Your task to perform on an android device: set an alarm Image 0: 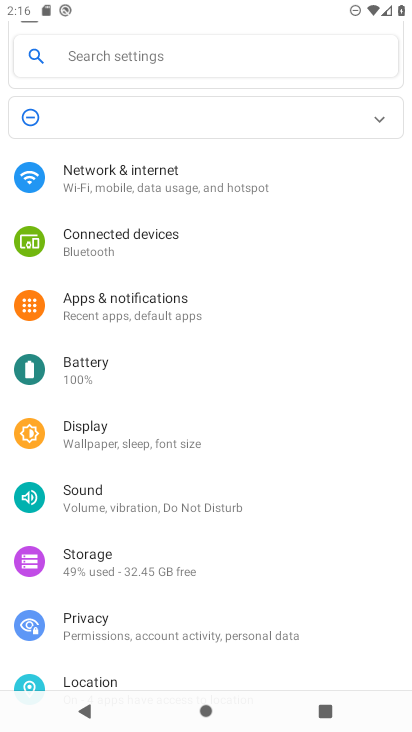
Step 0: press home button
Your task to perform on an android device: set an alarm Image 1: 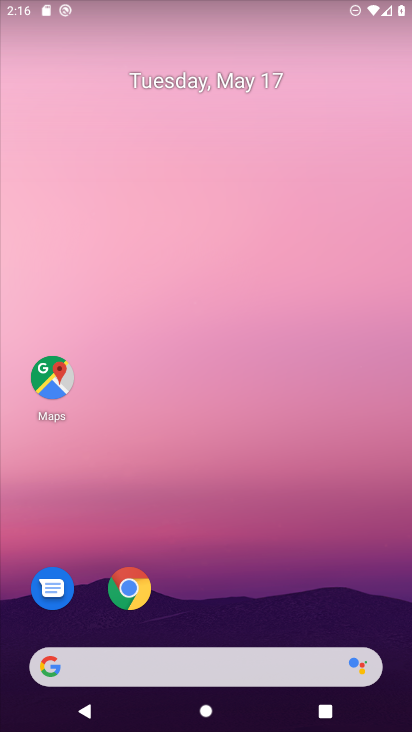
Step 1: drag from (214, 586) to (86, 121)
Your task to perform on an android device: set an alarm Image 2: 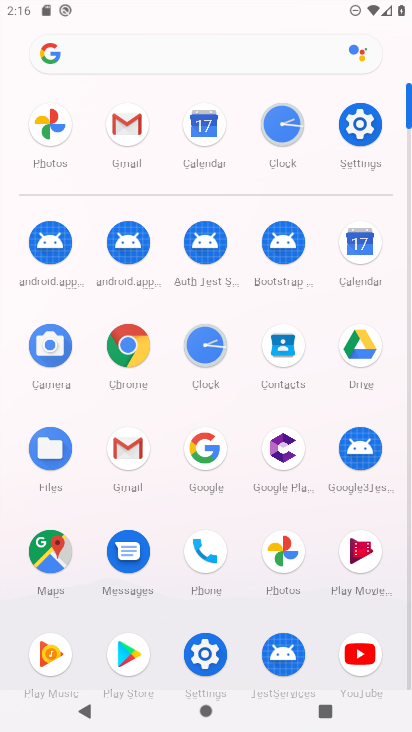
Step 2: click (283, 137)
Your task to perform on an android device: set an alarm Image 3: 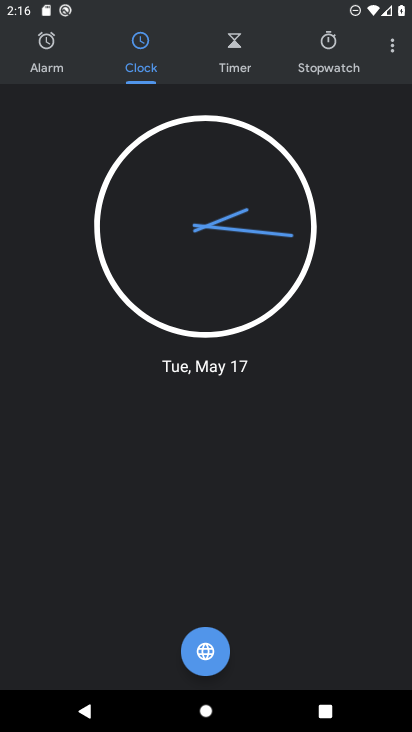
Step 3: click (37, 66)
Your task to perform on an android device: set an alarm Image 4: 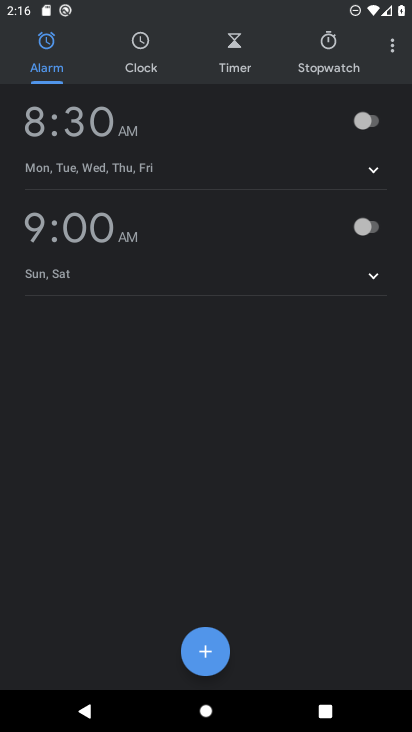
Step 4: click (217, 654)
Your task to perform on an android device: set an alarm Image 5: 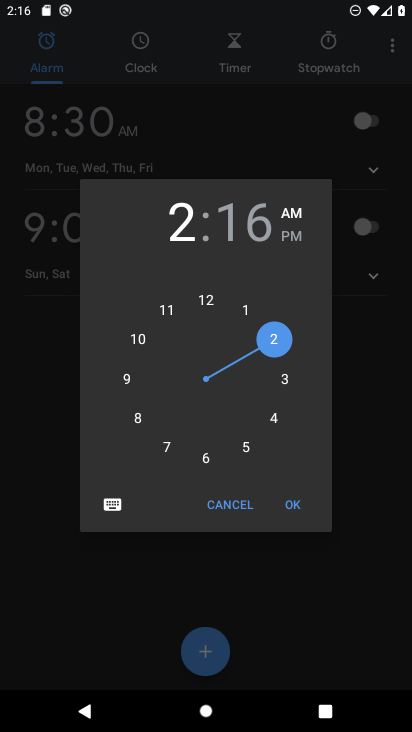
Step 5: click (300, 504)
Your task to perform on an android device: set an alarm Image 6: 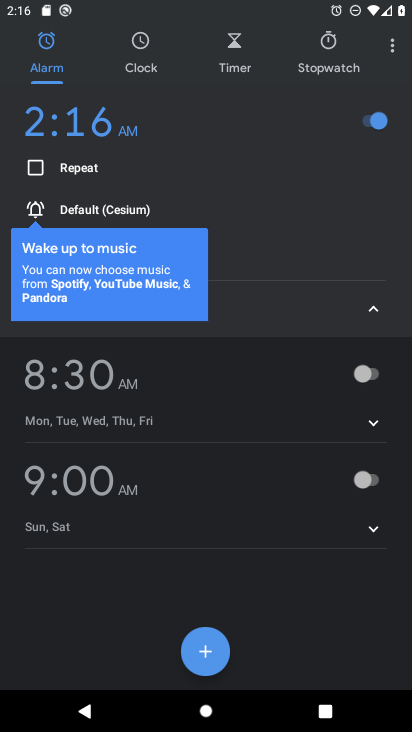
Step 6: click (380, 315)
Your task to perform on an android device: set an alarm Image 7: 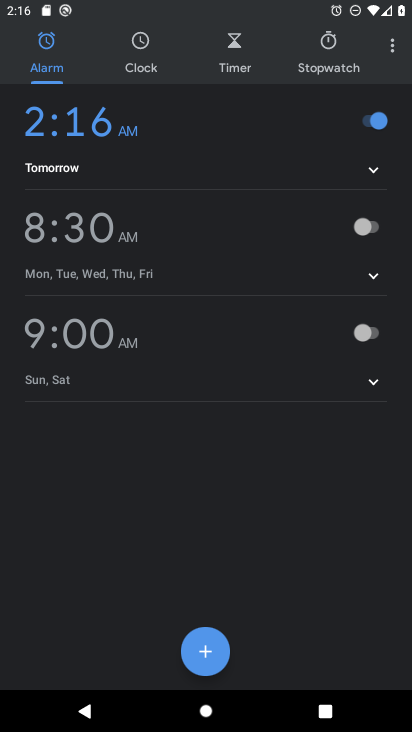
Step 7: click (363, 324)
Your task to perform on an android device: set an alarm Image 8: 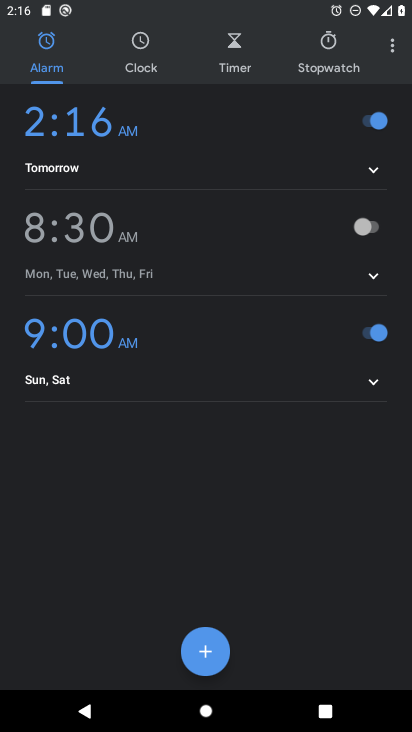
Step 8: task complete